Your task to perform on an android device: set default search engine in the chrome app Image 0: 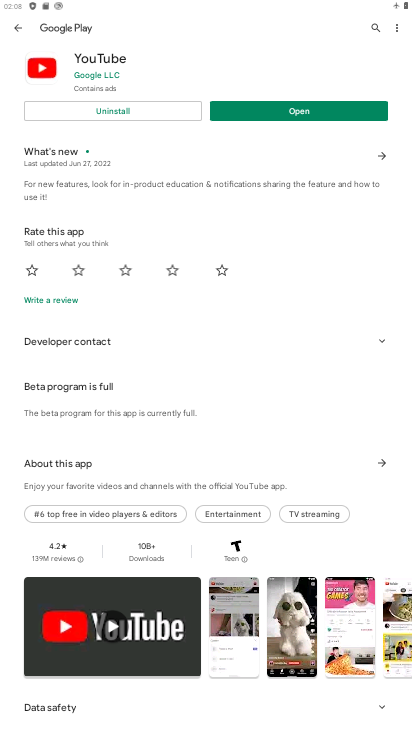
Step 0: press home button
Your task to perform on an android device: set default search engine in the chrome app Image 1: 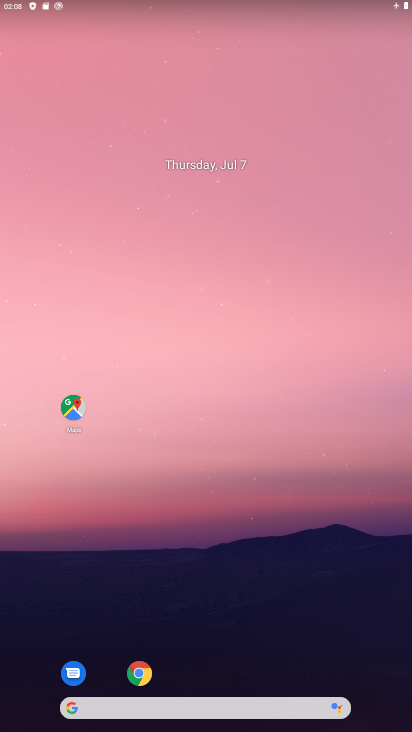
Step 1: click (151, 665)
Your task to perform on an android device: set default search engine in the chrome app Image 2: 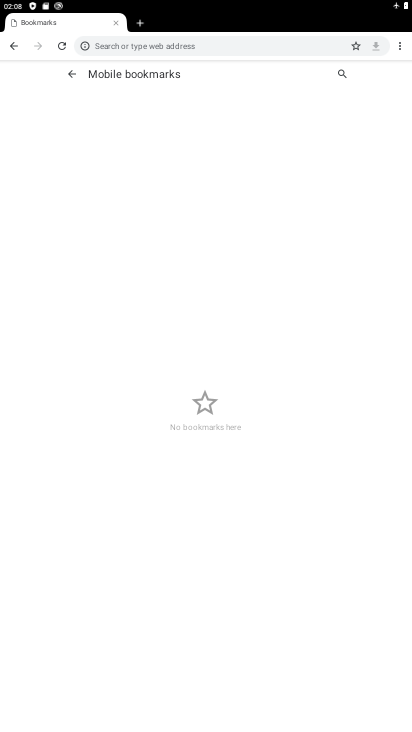
Step 2: click (401, 48)
Your task to perform on an android device: set default search engine in the chrome app Image 3: 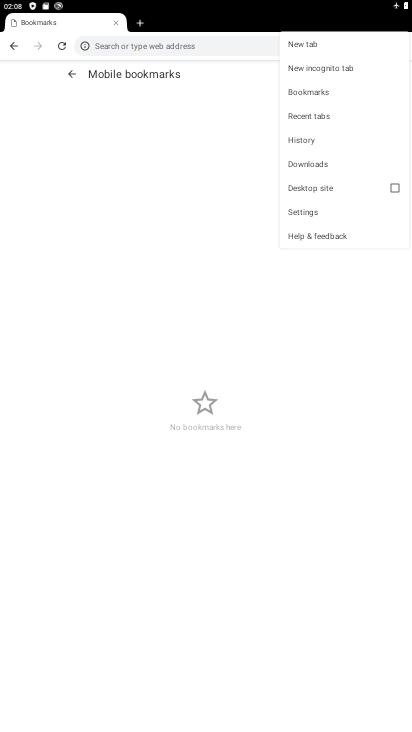
Step 3: click (325, 215)
Your task to perform on an android device: set default search engine in the chrome app Image 4: 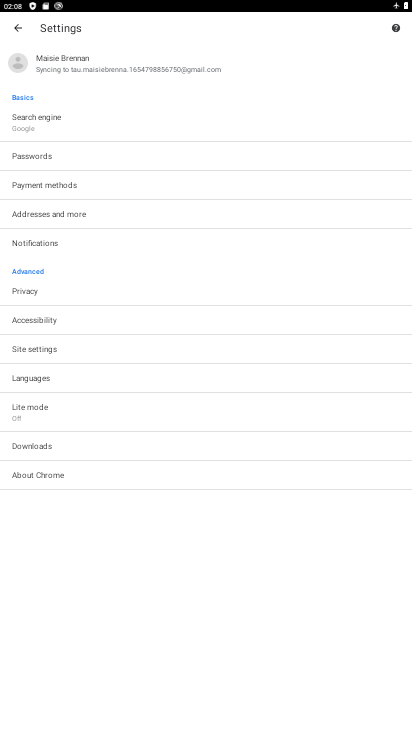
Step 4: click (103, 127)
Your task to perform on an android device: set default search engine in the chrome app Image 5: 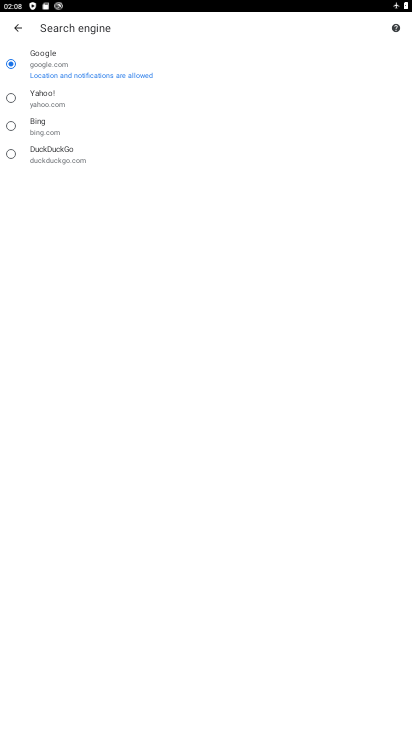
Step 5: task complete